Your task to perform on an android device: What's the weather going to be tomorrow? Image 0: 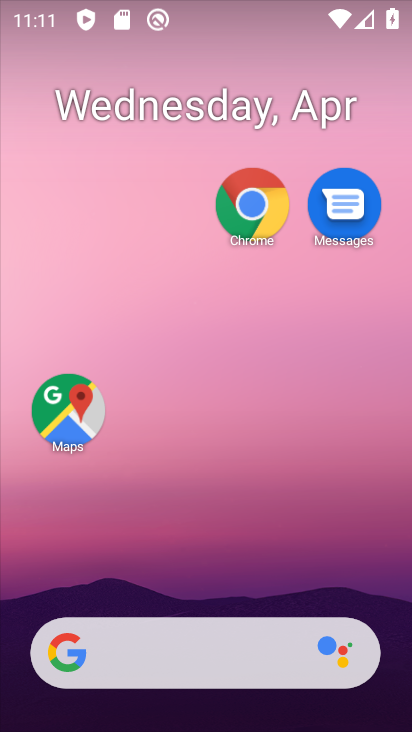
Step 0: drag from (193, 611) to (168, 105)
Your task to perform on an android device: What's the weather going to be tomorrow? Image 1: 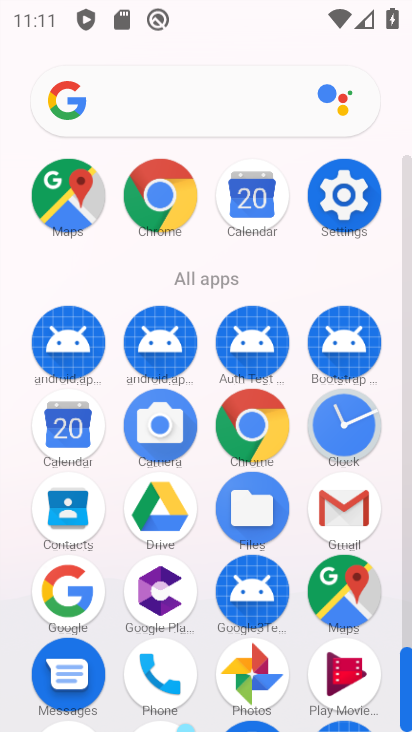
Step 1: click (83, 600)
Your task to perform on an android device: What's the weather going to be tomorrow? Image 2: 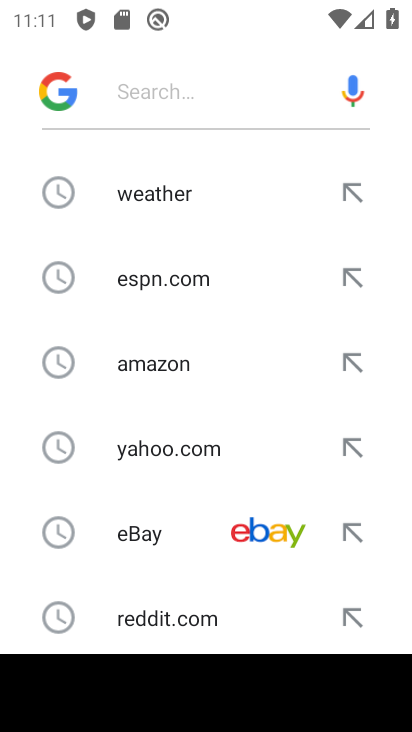
Step 2: click (120, 195)
Your task to perform on an android device: What's the weather going to be tomorrow? Image 3: 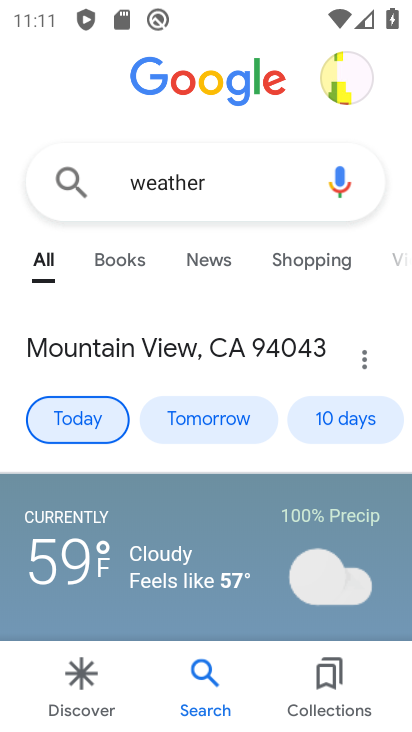
Step 3: click (201, 414)
Your task to perform on an android device: What's the weather going to be tomorrow? Image 4: 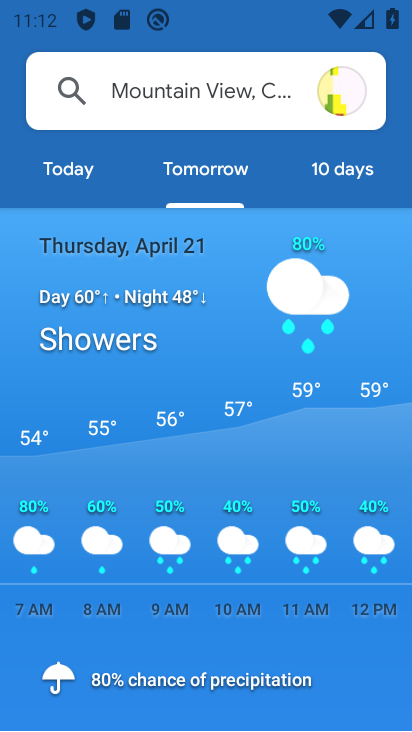
Step 4: task complete